Your task to perform on an android device: Open internet settings Image 0: 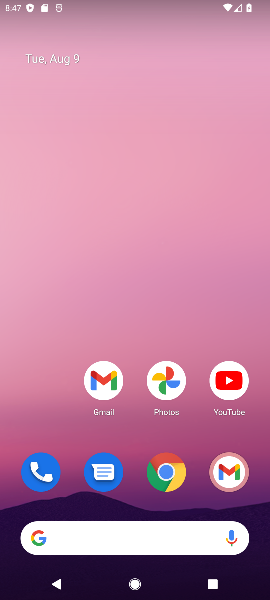
Step 0: drag from (168, 536) to (184, 224)
Your task to perform on an android device: Open internet settings Image 1: 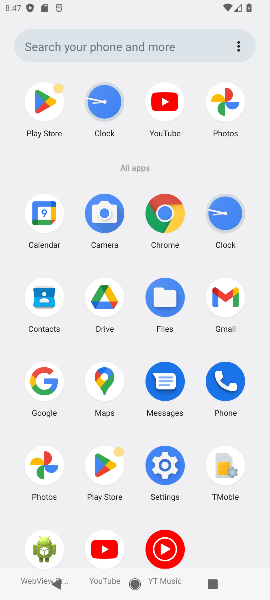
Step 1: click (159, 455)
Your task to perform on an android device: Open internet settings Image 2: 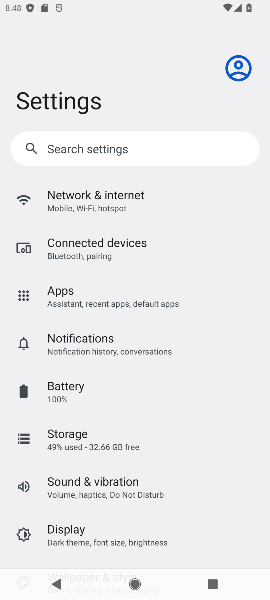
Step 2: click (74, 195)
Your task to perform on an android device: Open internet settings Image 3: 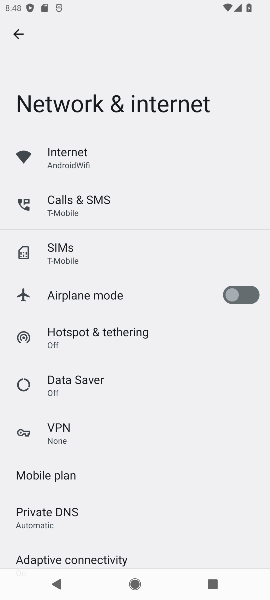
Step 3: task complete